Your task to perform on an android device: turn on sleep mode Image 0: 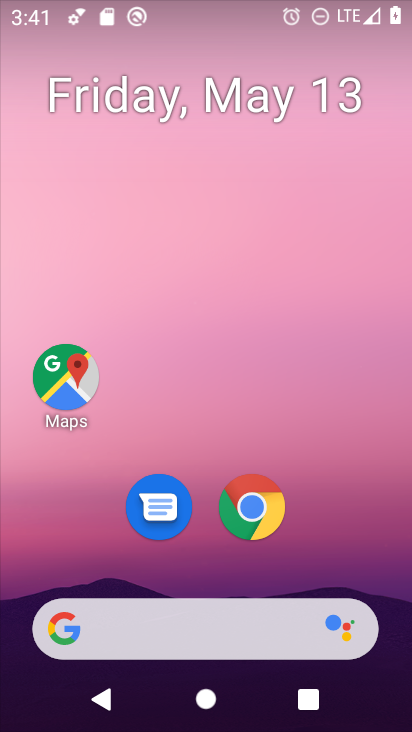
Step 0: drag from (334, 549) to (238, 181)
Your task to perform on an android device: turn on sleep mode Image 1: 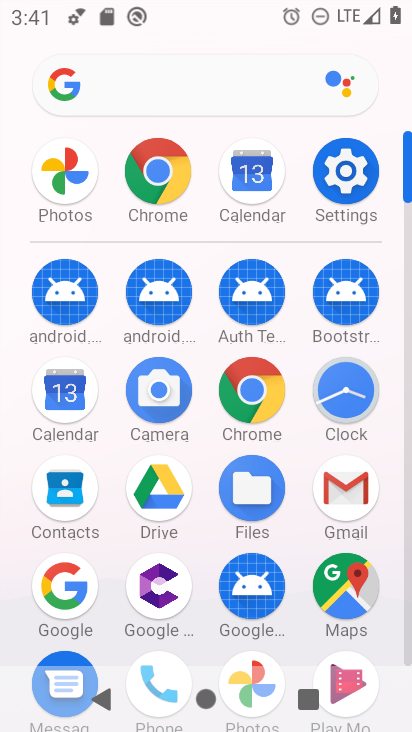
Step 1: click (339, 166)
Your task to perform on an android device: turn on sleep mode Image 2: 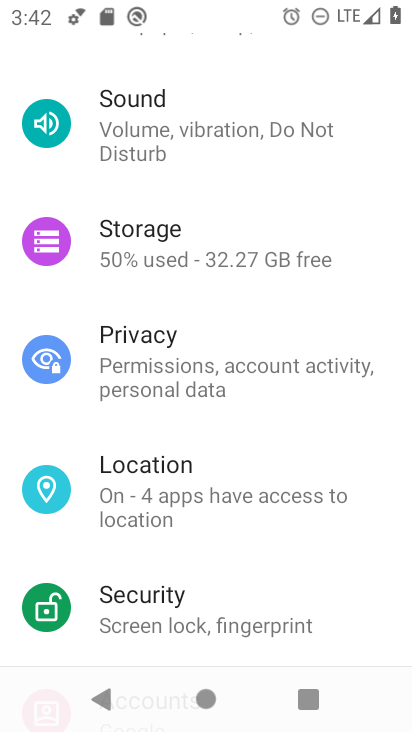
Step 2: drag from (269, 505) to (231, 170)
Your task to perform on an android device: turn on sleep mode Image 3: 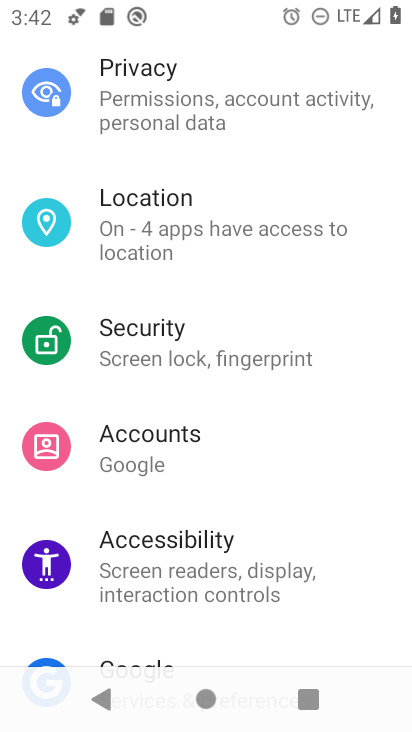
Step 3: drag from (219, 191) to (197, 522)
Your task to perform on an android device: turn on sleep mode Image 4: 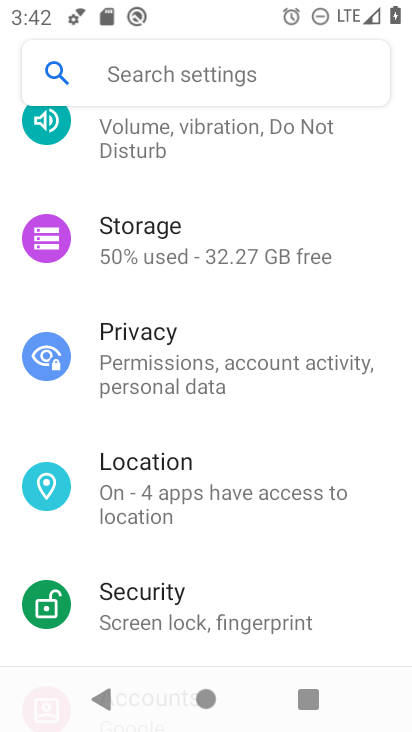
Step 4: drag from (274, 189) to (254, 504)
Your task to perform on an android device: turn on sleep mode Image 5: 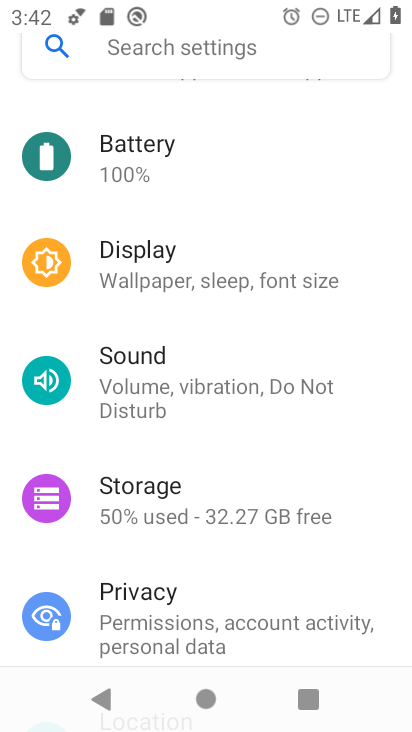
Step 5: click (256, 322)
Your task to perform on an android device: turn on sleep mode Image 6: 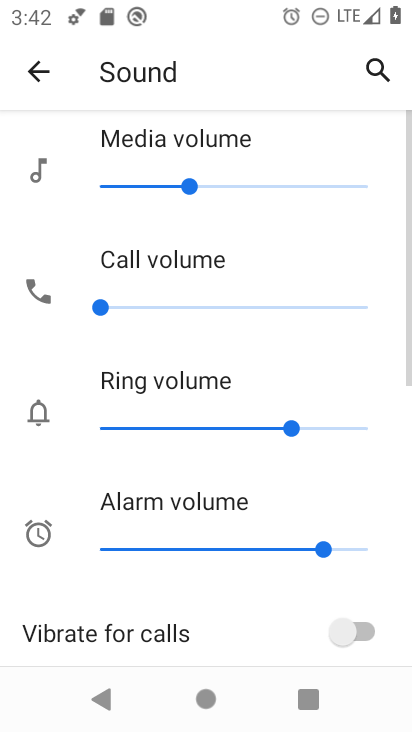
Step 6: drag from (212, 416) to (230, 106)
Your task to perform on an android device: turn on sleep mode Image 7: 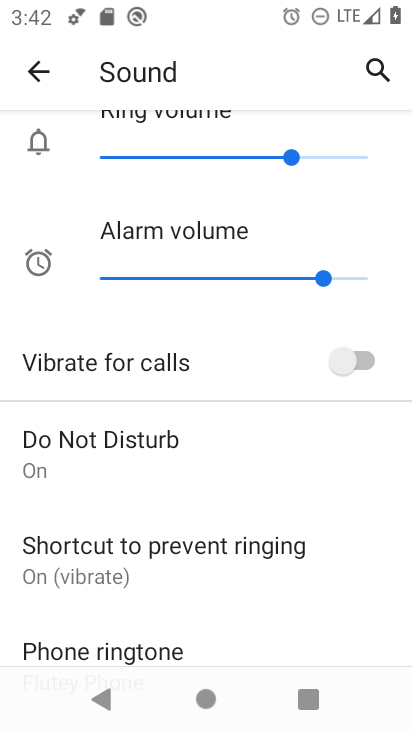
Step 7: drag from (151, 477) to (198, 97)
Your task to perform on an android device: turn on sleep mode Image 8: 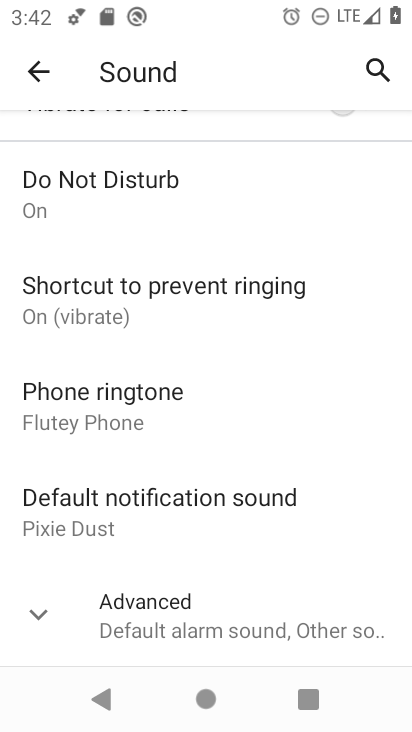
Step 8: drag from (186, 441) to (200, 110)
Your task to perform on an android device: turn on sleep mode Image 9: 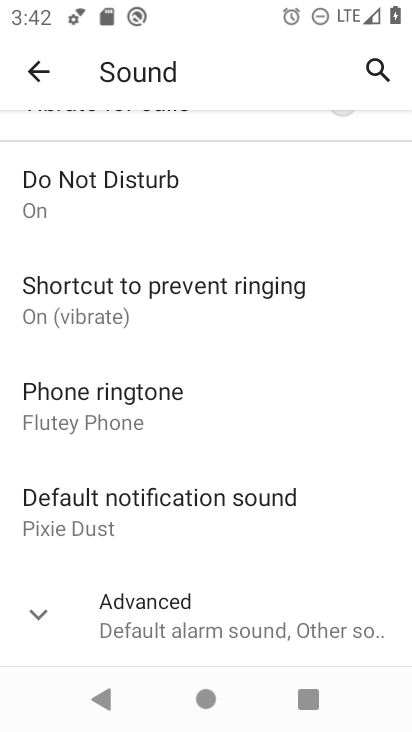
Step 9: drag from (305, 178) to (305, 554)
Your task to perform on an android device: turn on sleep mode Image 10: 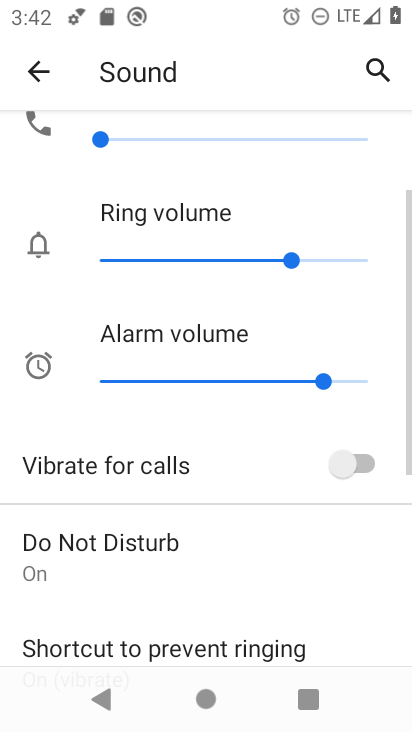
Step 10: drag from (284, 194) to (179, 586)
Your task to perform on an android device: turn on sleep mode Image 11: 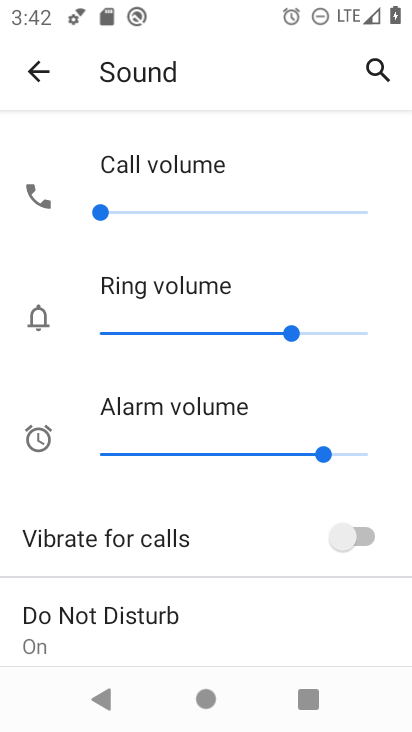
Step 11: drag from (233, 503) to (299, 94)
Your task to perform on an android device: turn on sleep mode Image 12: 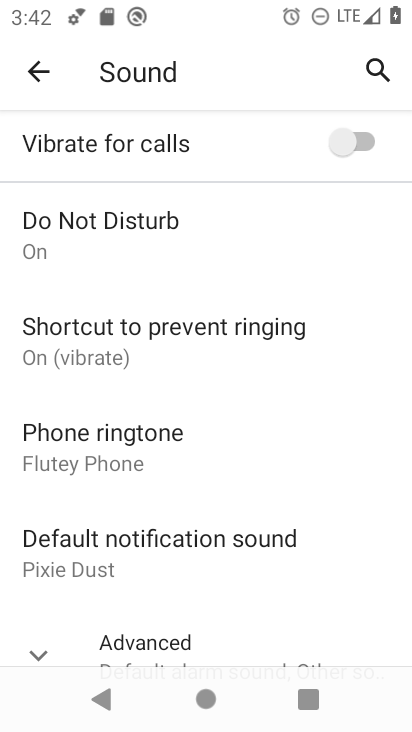
Step 12: click (171, 623)
Your task to perform on an android device: turn on sleep mode Image 13: 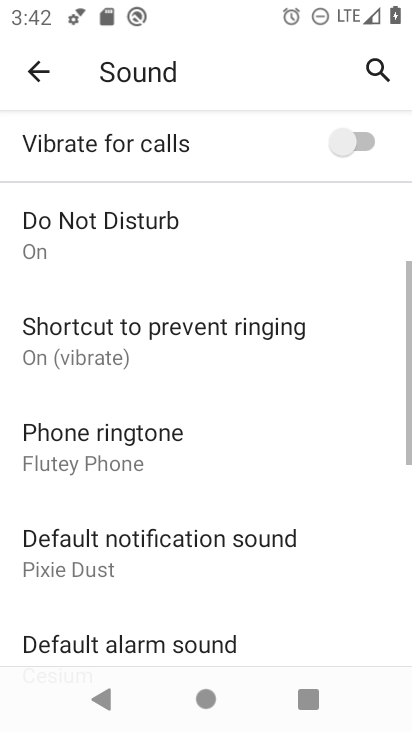
Step 13: task complete